Your task to perform on an android device: What is the recent news? Image 0: 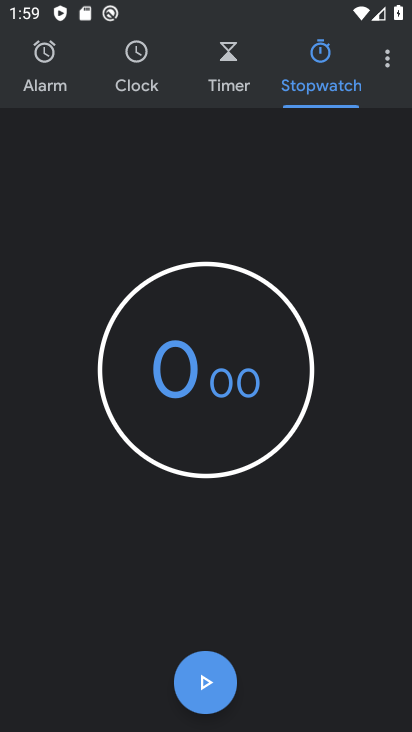
Step 0: press home button
Your task to perform on an android device: What is the recent news? Image 1: 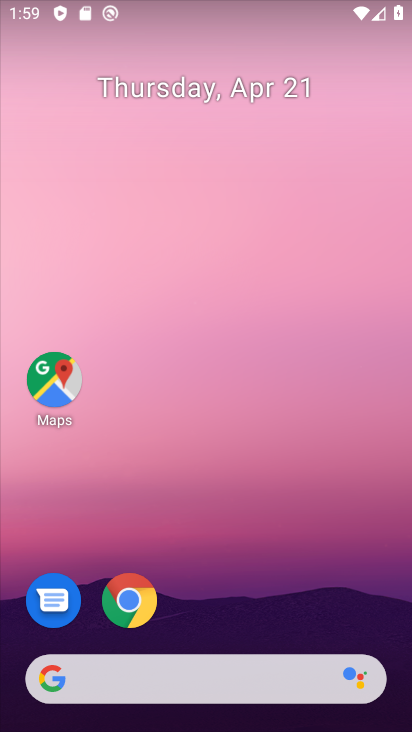
Step 1: click (129, 596)
Your task to perform on an android device: What is the recent news? Image 2: 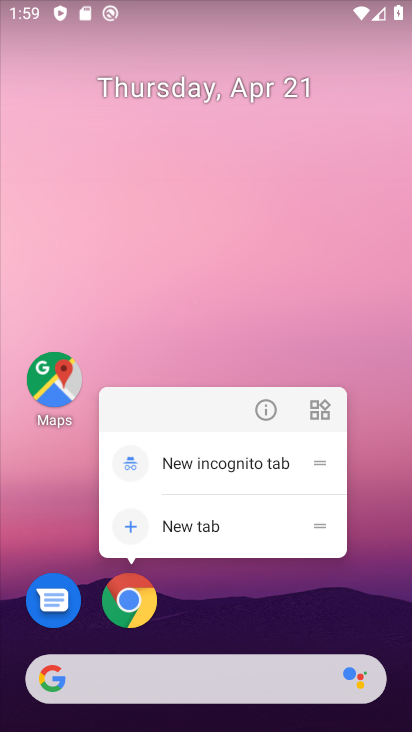
Step 2: click (135, 610)
Your task to perform on an android device: What is the recent news? Image 3: 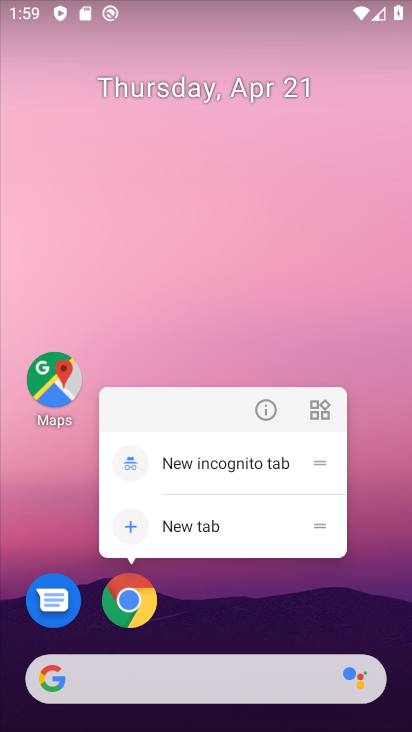
Step 3: click (142, 595)
Your task to perform on an android device: What is the recent news? Image 4: 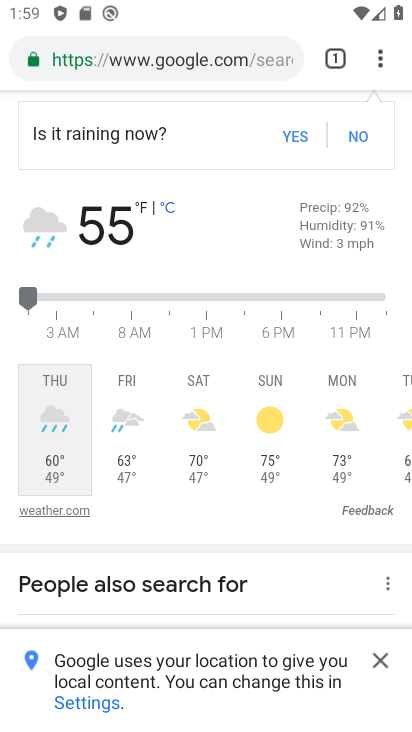
Step 4: drag from (221, 124) to (256, 539)
Your task to perform on an android device: What is the recent news? Image 5: 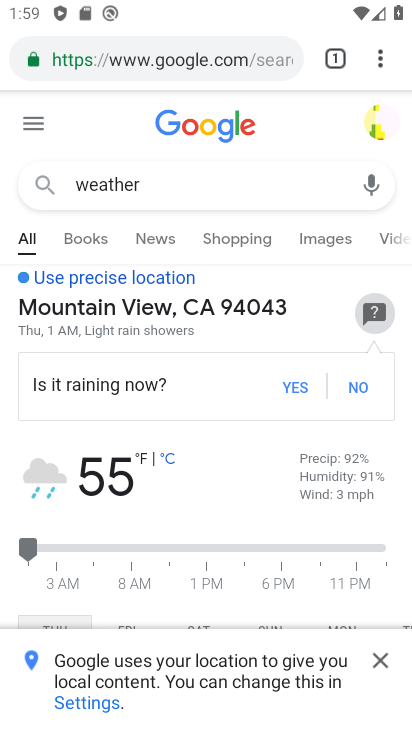
Step 5: click (214, 172)
Your task to perform on an android device: What is the recent news? Image 6: 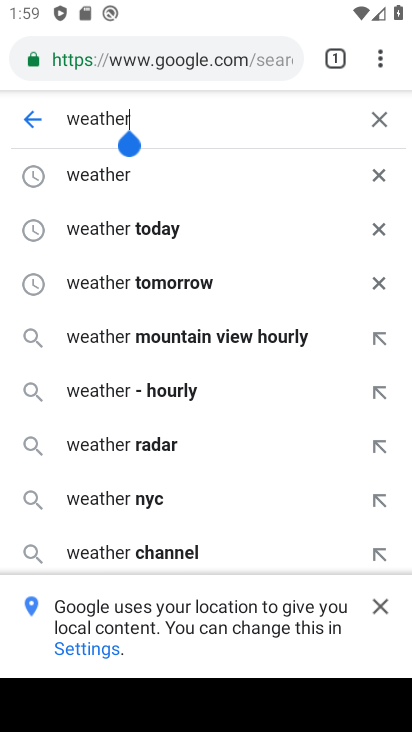
Step 6: click (379, 110)
Your task to perform on an android device: What is the recent news? Image 7: 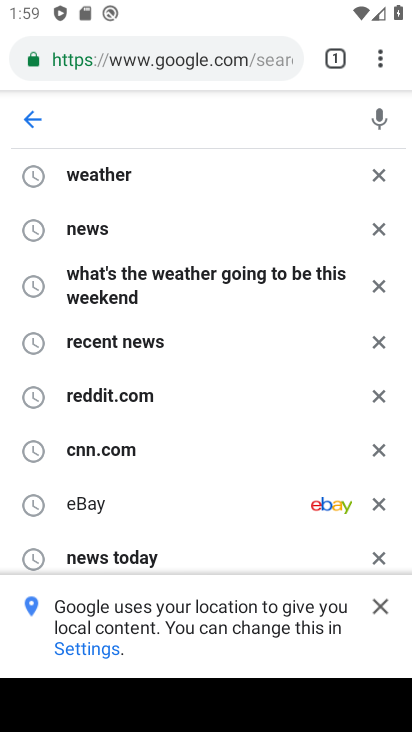
Step 7: click (109, 173)
Your task to perform on an android device: What is the recent news? Image 8: 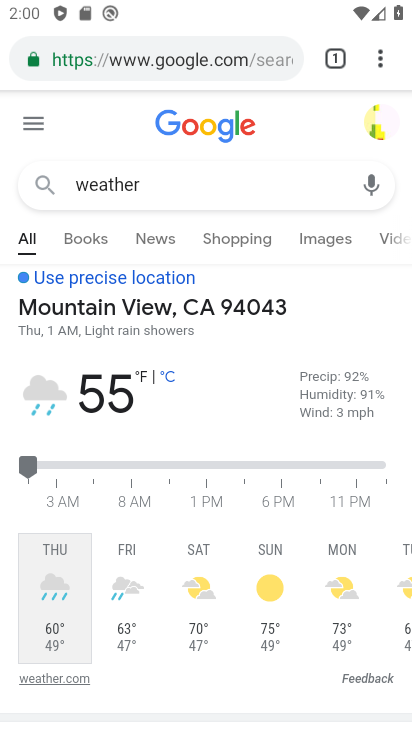
Step 8: click (197, 177)
Your task to perform on an android device: What is the recent news? Image 9: 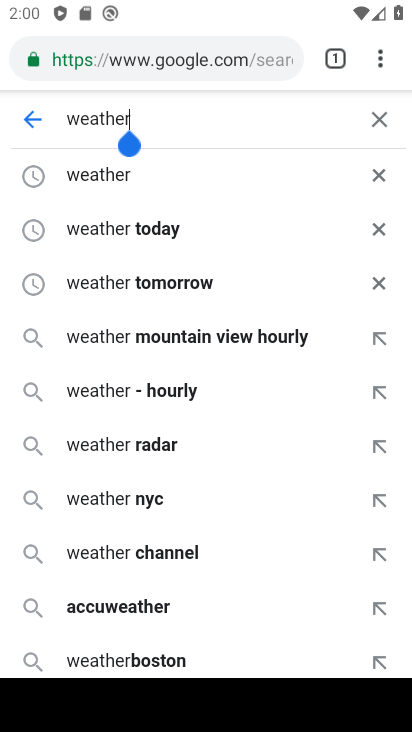
Step 9: click (373, 124)
Your task to perform on an android device: What is the recent news? Image 10: 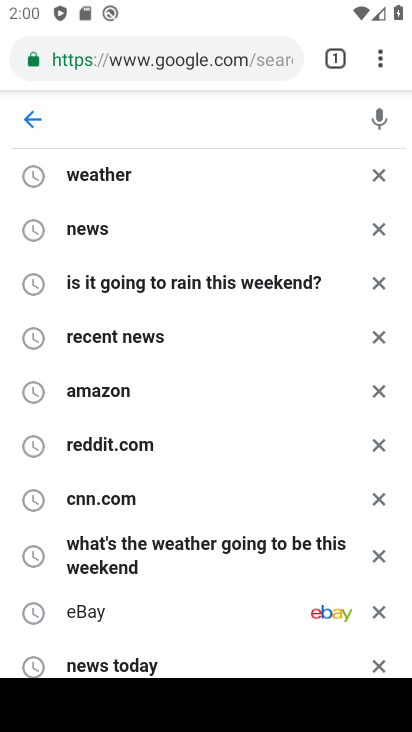
Step 10: click (86, 223)
Your task to perform on an android device: What is the recent news? Image 11: 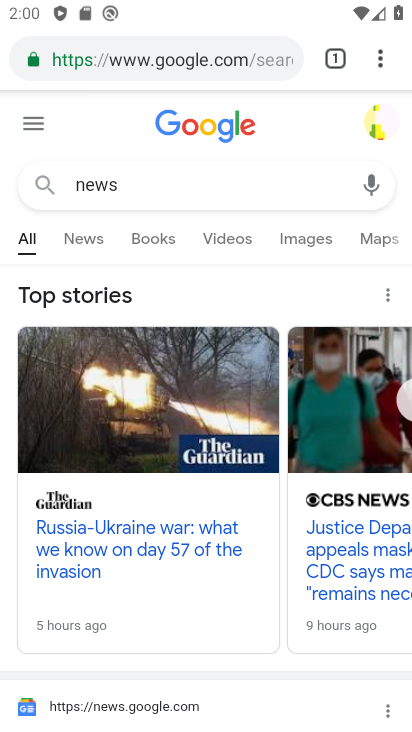
Step 11: click (60, 239)
Your task to perform on an android device: What is the recent news? Image 12: 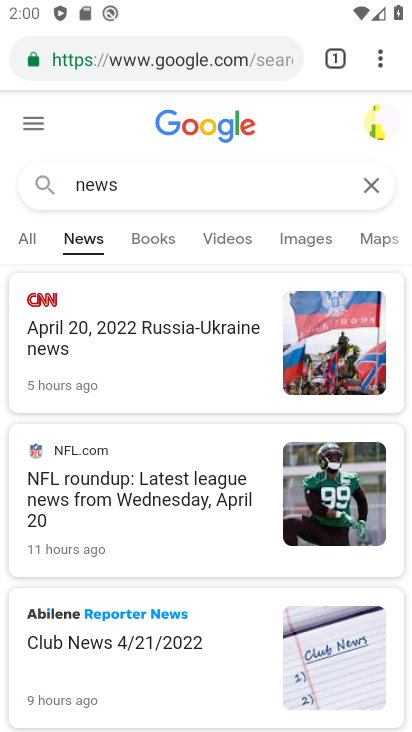
Step 12: task complete